Your task to perform on an android device: Open Maps and search for coffee Image 0: 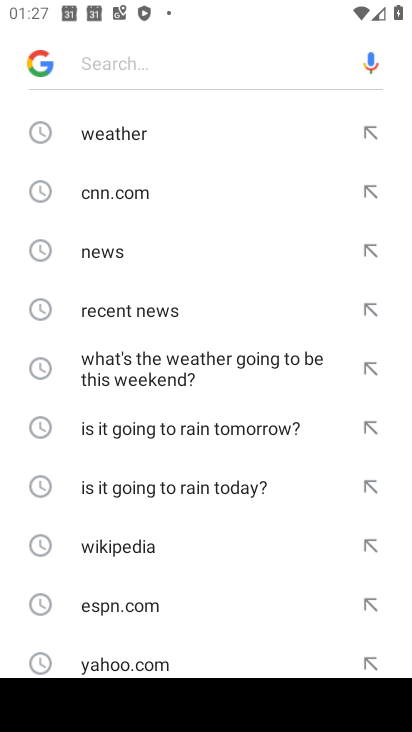
Step 0: press home button
Your task to perform on an android device: Open Maps and search for coffee Image 1: 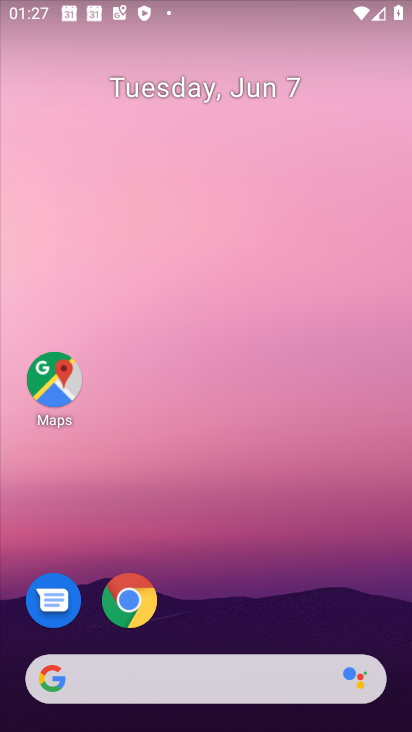
Step 1: drag from (196, 723) to (193, 183)
Your task to perform on an android device: Open Maps and search for coffee Image 2: 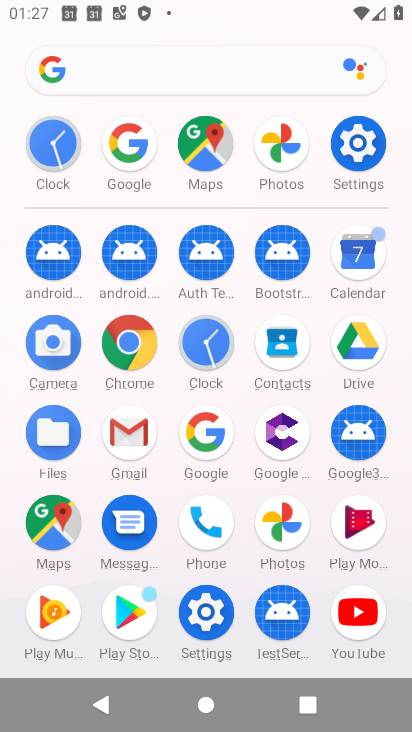
Step 2: click (60, 530)
Your task to perform on an android device: Open Maps and search for coffee Image 3: 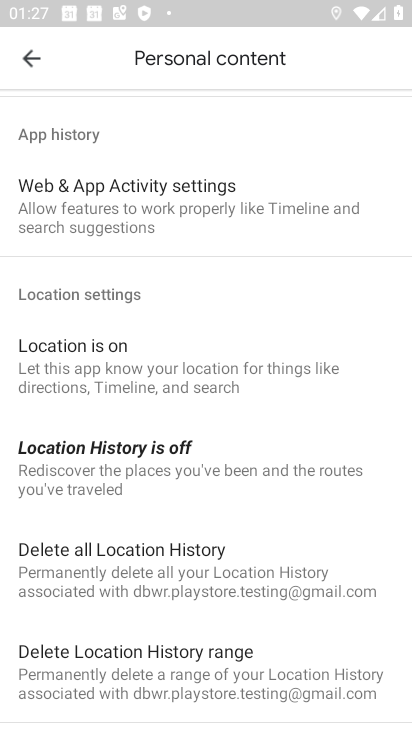
Step 3: click (32, 60)
Your task to perform on an android device: Open Maps and search for coffee Image 4: 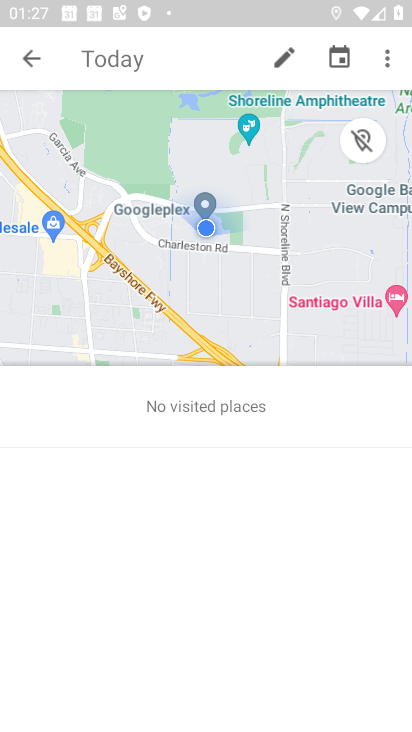
Step 4: click (33, 54)
Your task to perform on an android device: Open Maps and search for coffee Image 5: 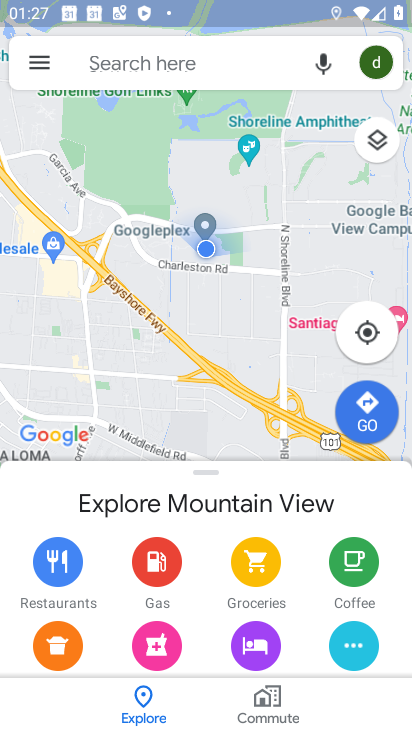
Step 5: click (149, 61)
Your task to perform on an android device: Open Maps and search for coffee Image 6: 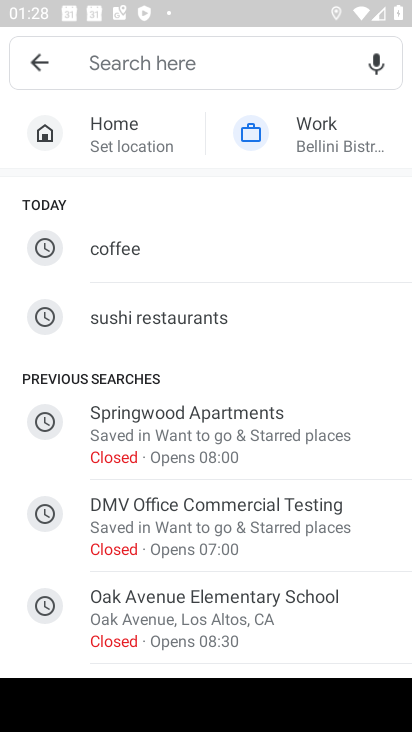
Step 6: type "coffe"
Your task to perform on an android device: Open Maps and search for coffee Image 7: 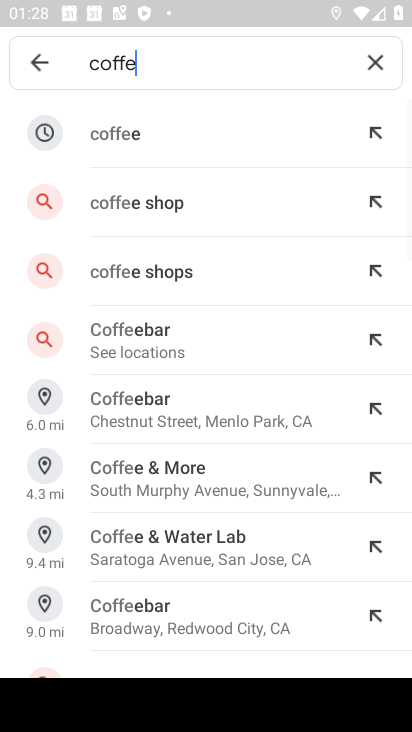
Step 7: click (132, 129)
Your task to perform on an android device: Open Maps and search for coffee Image 8: 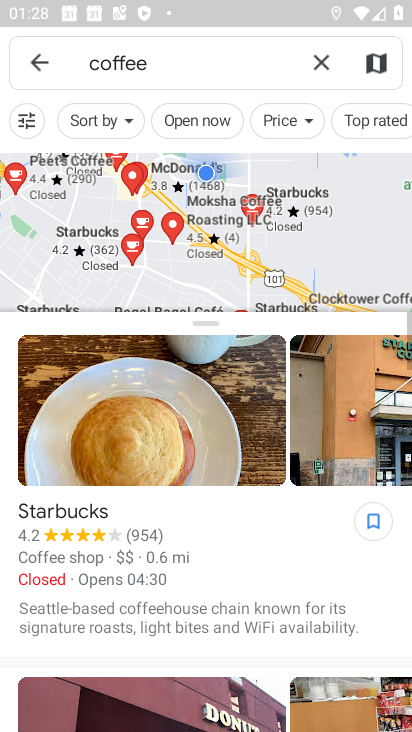
Step 8: task complete